Your task to perform on an android device: Open Yahoo.com Image 0: 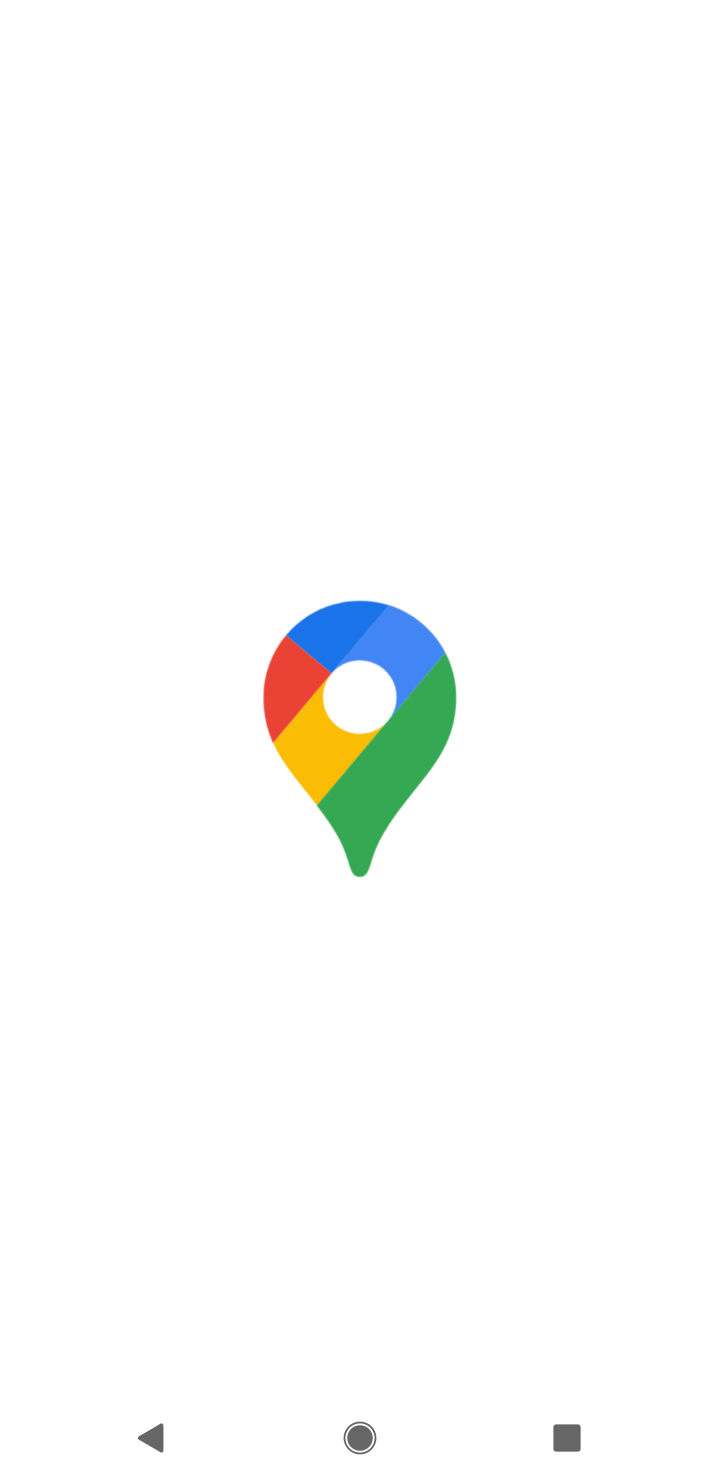
Step 0: task complete